Your task to perform on an android device: check google app version Image 0: 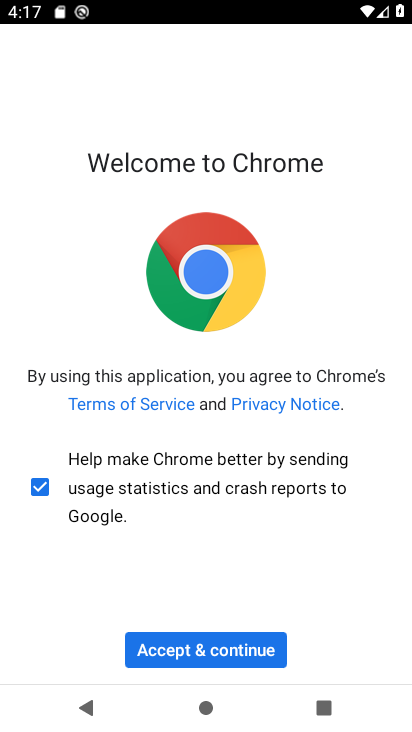
Step 0: press home button
Your task to perform on an android device: check google app version Image 1: 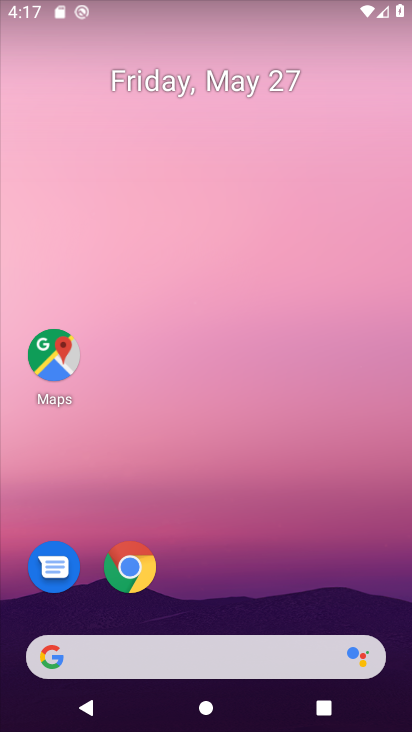
Step 1: drag from (221, 595) to (205, 14)
Your task to perform on an android device: check google app version Image 2: 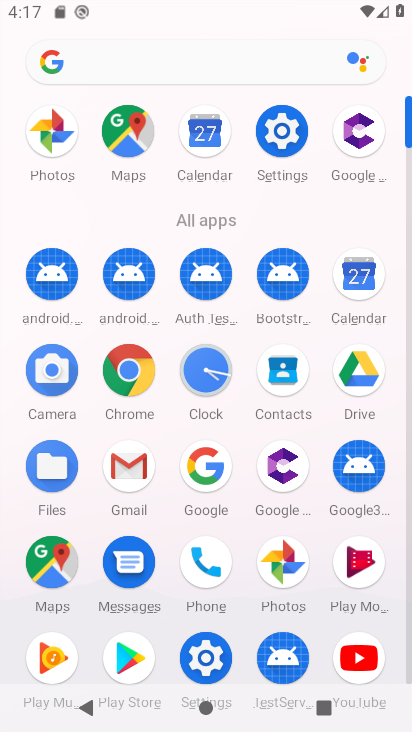
Step 2: click (215, 475)
Your task to perform on an android device: check google app version Image 3: 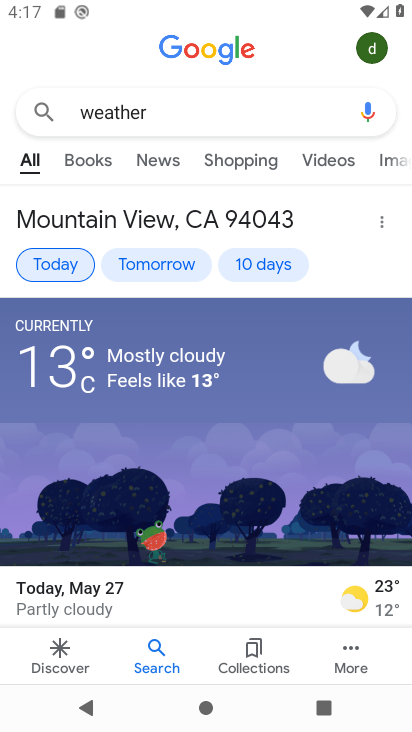
Step 3: click (351, 641)
Your task to perform on an android device: check google app version Image 4: 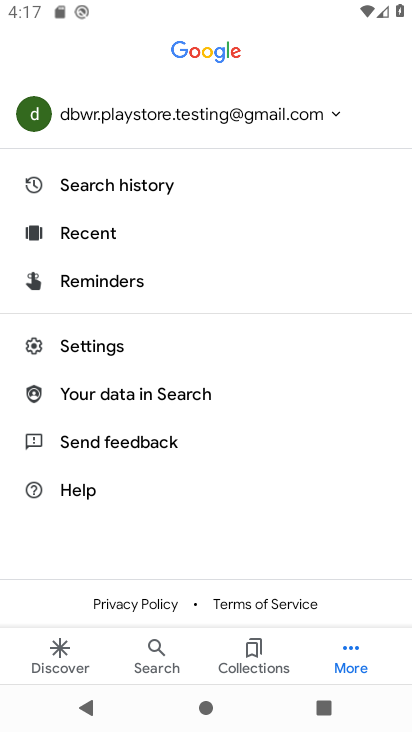
Step 4: click (102, 349)
Your task to perform on an android device: check google app version Image 5: 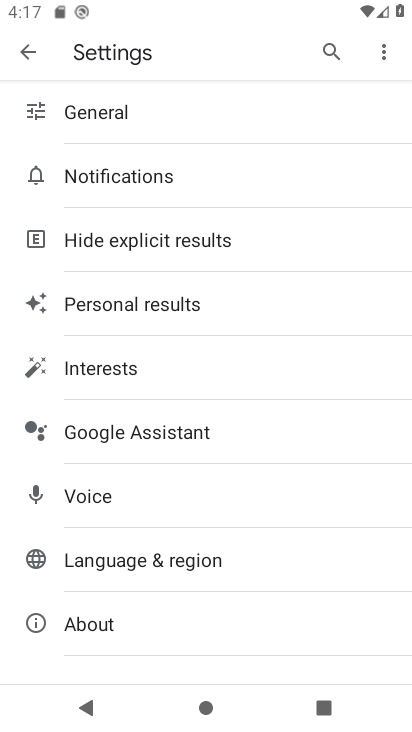
Step 5: click (167, 645)
Your task to perform on an android device: check google app version Image 6: 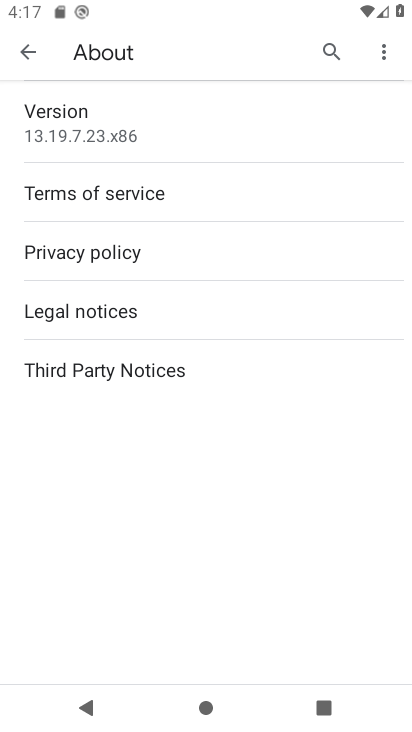
Step 6: click (123, 121)
Your task to perform on an android device: check google app version Image 7: 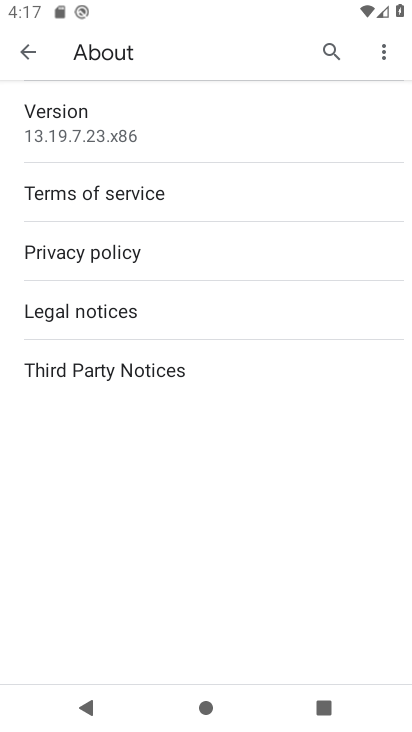
Step 7: task complete